Your task to perform on an android device: change alarm snooze length Image 0: 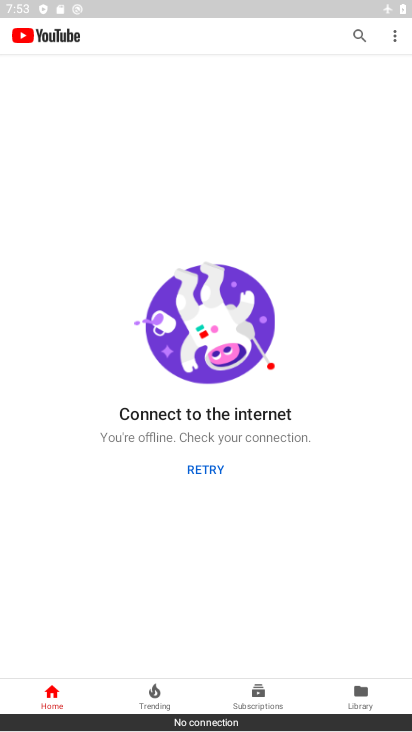
Step 0: press back button
Your task to perform on an android device: change alarm snooze length Image 1: 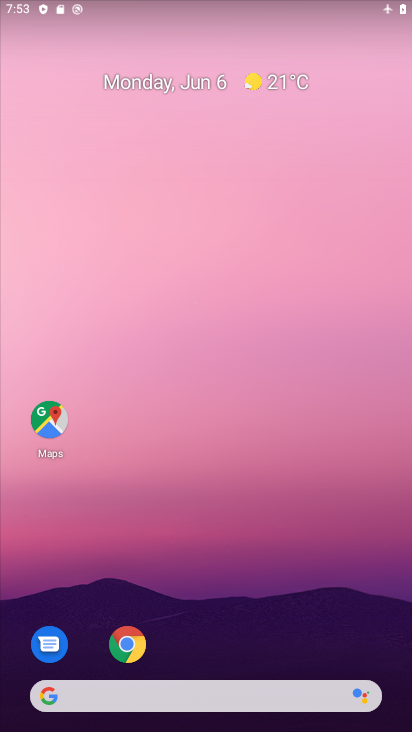
Step 1: drag from (219, 656) to (184, 142)
Your task to perform on an android device: change alarm snooze length Image 2: 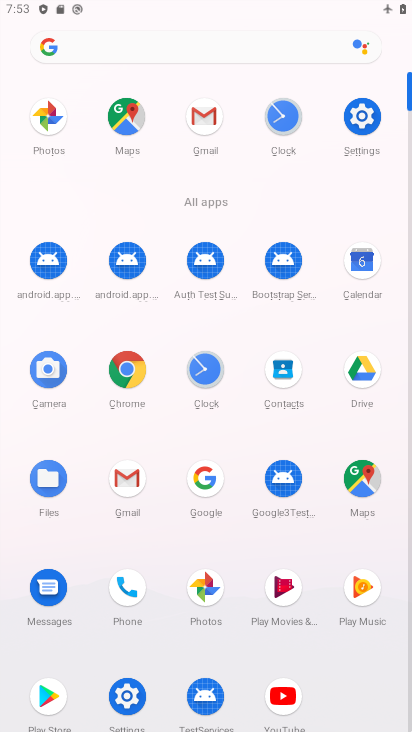
Step 2: click (200, 368)
Your task to perform on an android device: change alarm snooze length Image 3: 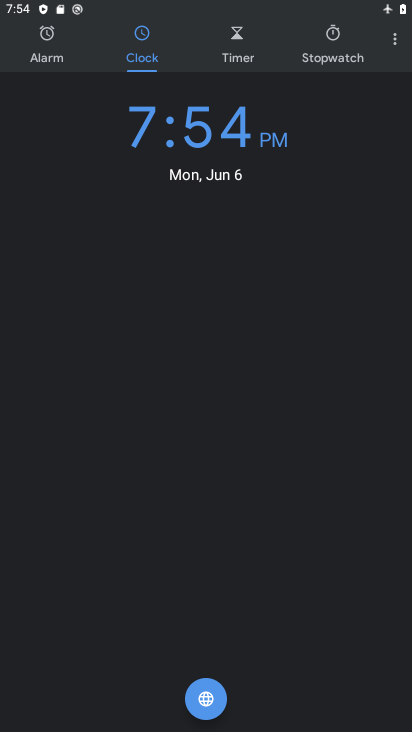
Step 3: click (384, 34)
Your task to perform on an android device: change alarm snooze length Image 4: 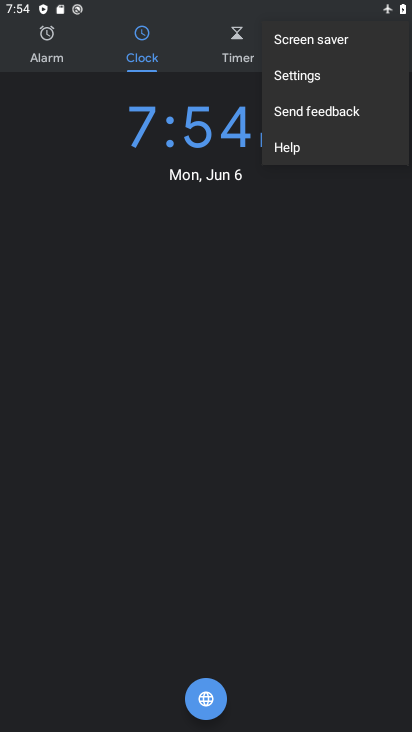
Step 4: click (311, 77)
Your task to perform on an android device: change alarm snooze length Image 5: 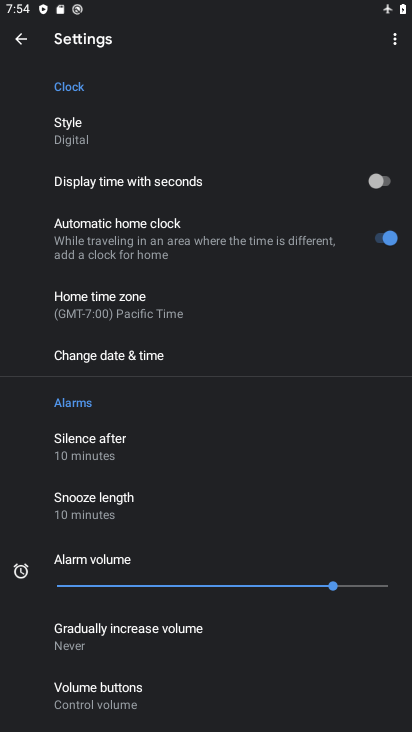
Step 5: click (102, 501)
Your task to perform on an android device: change alarm snooze length Image 6: 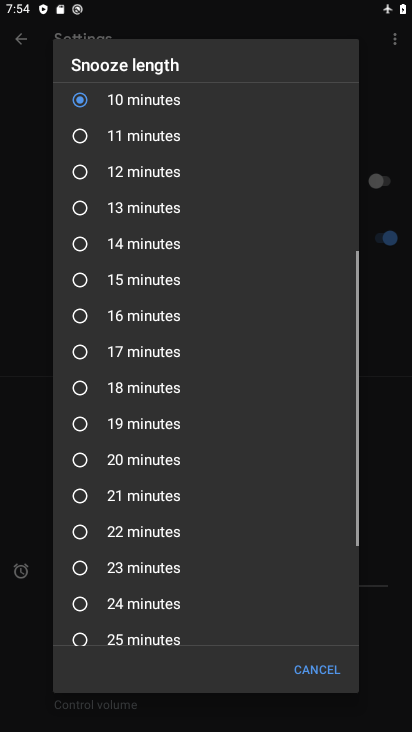
Step 6: click (109, 129)
Your task to perform on an android device: change alarm snooze length Image 7: 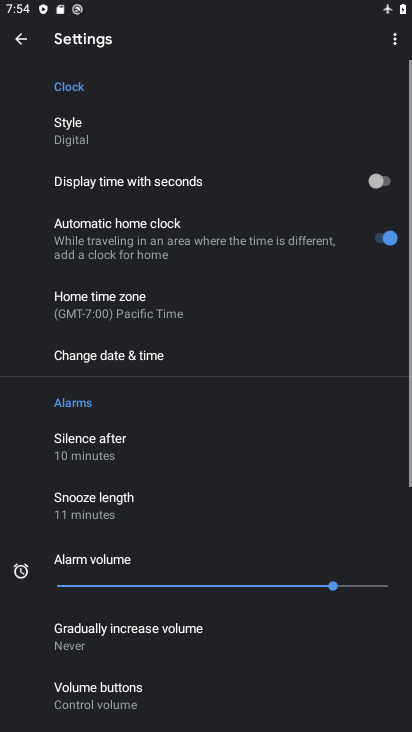
Step 7: task complete